Your task to perform on an android device: Do I have any events today? Image 0: 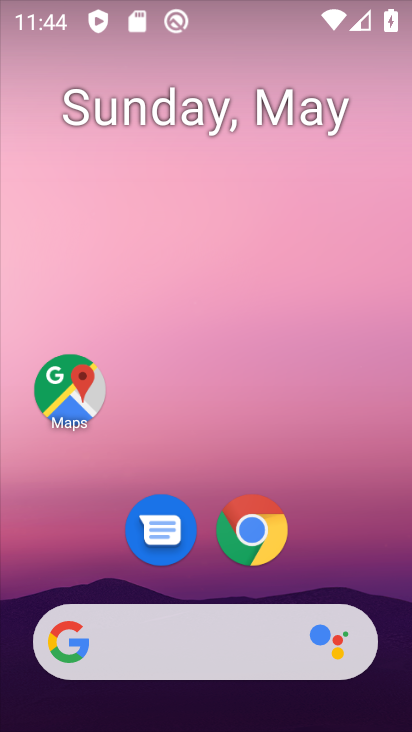
Step 0: drag from (238, 472) to (267, 70)
Your task to perform on an android device: Do I have any events today? Image 1: 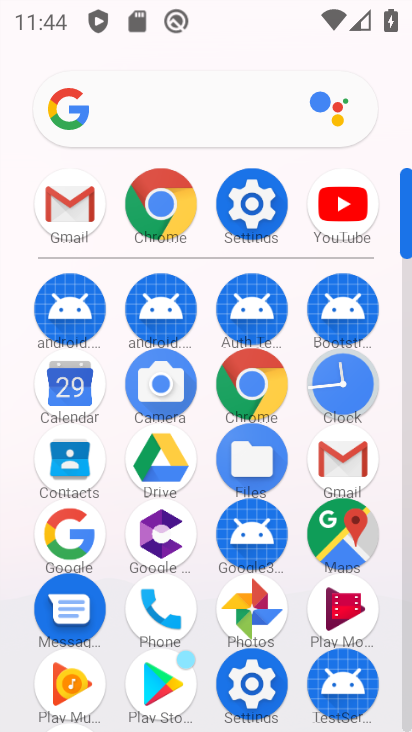
Step 1: click (54, 399)
Your task to perform on an android device: Do I have any events today? Image 2: 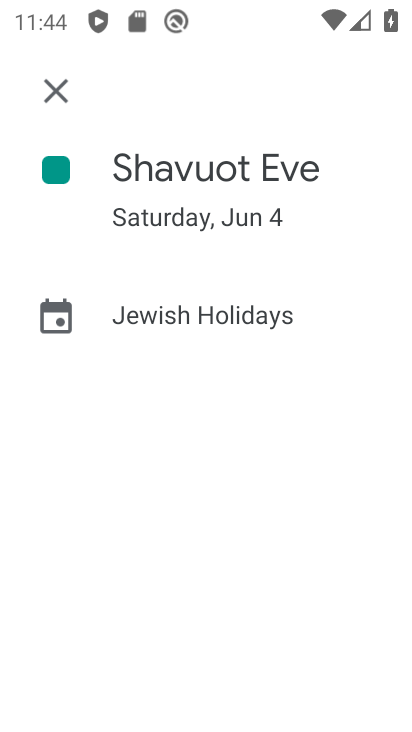
Step 2: click (36, 90)
Your task to perform on an android device: Do I have any events today? Image 3: 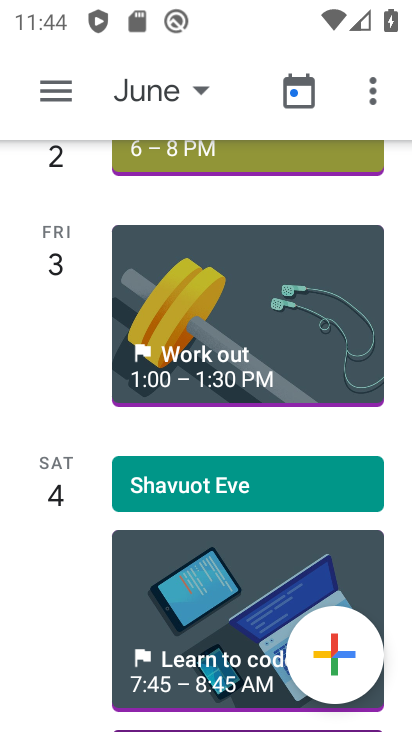
Step 3: drag from (195, 404) to (261, 48)
Your task to perform on an android device: Do I have any events today? Image 4: 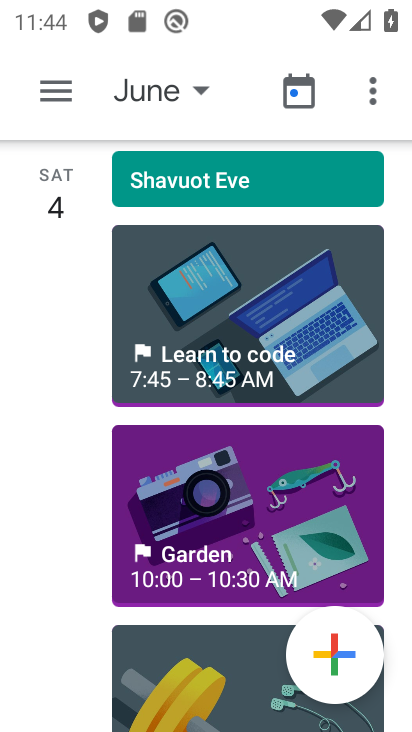
Step 4: drag from (229, 555) to (278, 114)
Your task to perform on an android device: Do I have any events today? Image 5: 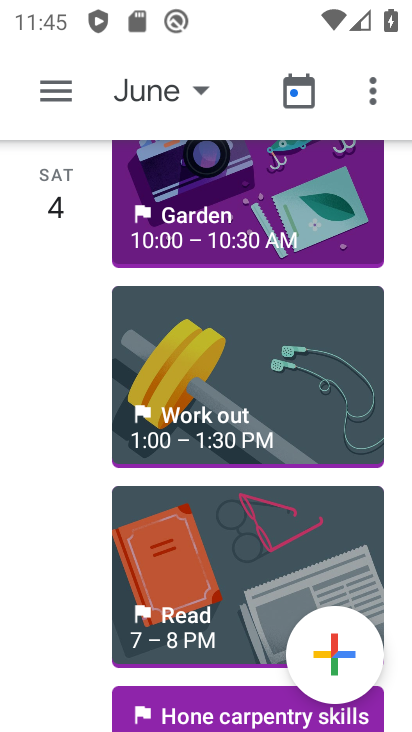
Step 5: click (270, 264)
Your task to perform on an android device: Do I have any events today? Image 6: 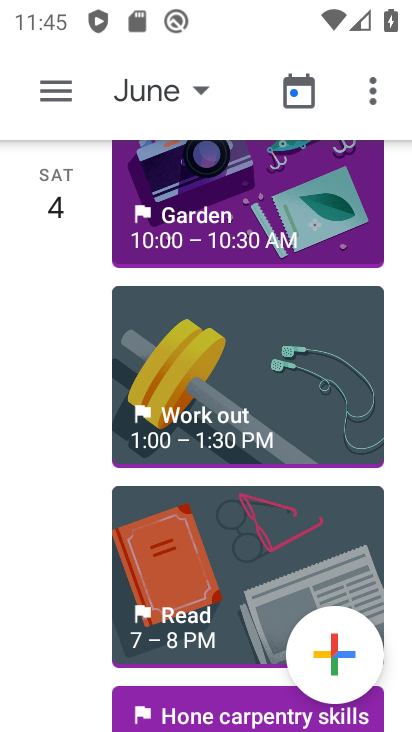
Step 6: drag from (221, 304) to (199, 610)
Your task to perform on an android device: Do I have any events today? Image 7: 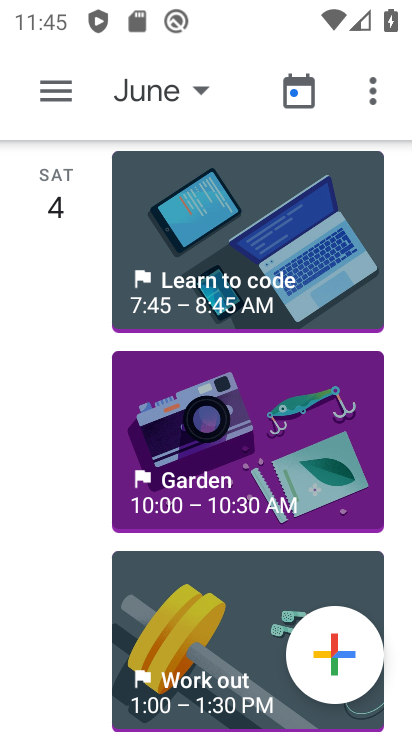
Step 7: drag from (193, 368) to (158, 711)
Your task to perform on an android device: Do I have any events today? Image 8: 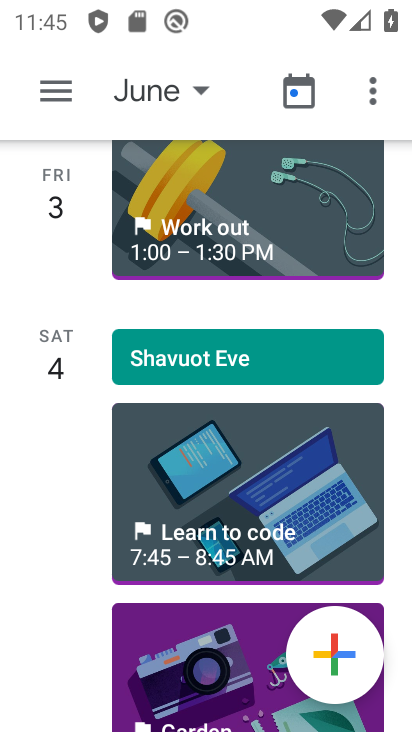
Step 8: click (158, 90)
Your task to perform on an android device: Do I have any events today? Image 9: 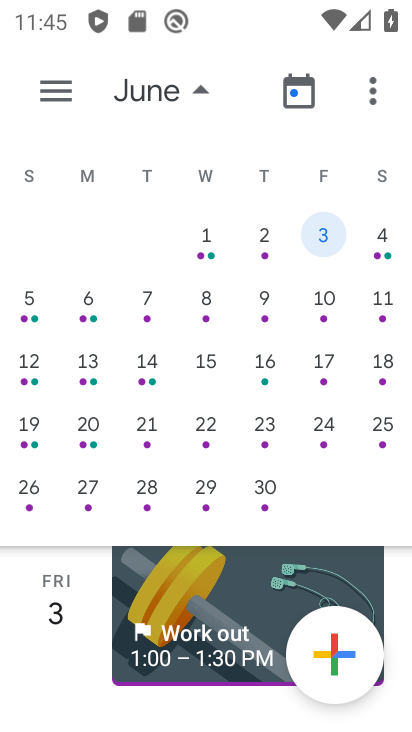
Step 9: drag from (33, 349) to (368, 410)
Your task to perform on an android device: Do I have any events today? Image 10: 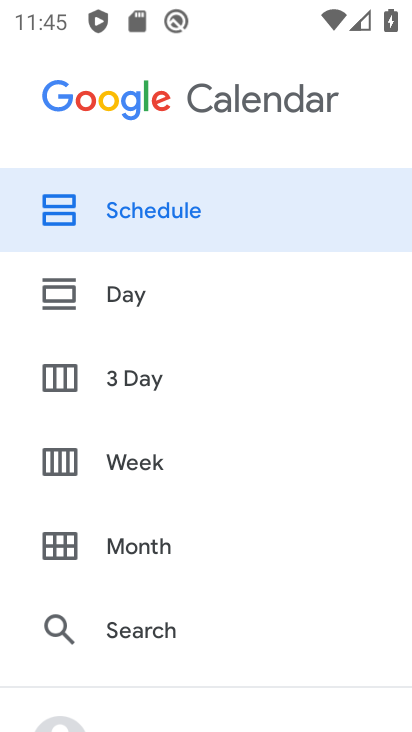
Step 10: drag from (367, 400) to (0, 393)
Your task to perform on an android device: Do I have any events today? Image 11: 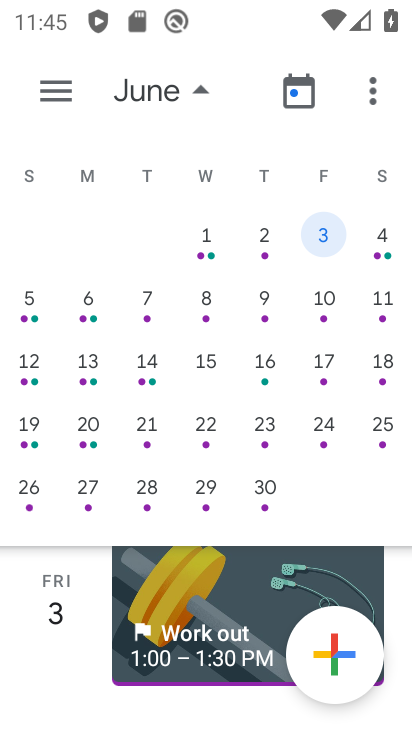
Step 11: drag from (43, 398) to (371, 399)
Your task to perform on an android device: Do I have any events today? Image 12: 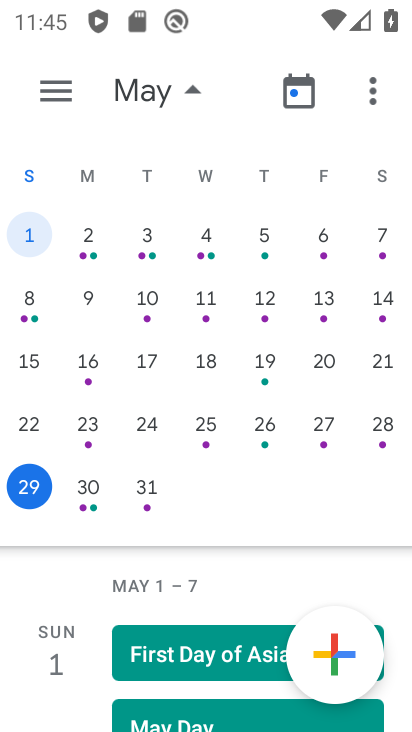
Step 12: click (90, 486)
Your task to perform on an android device: Do I have any events today? Image 13: 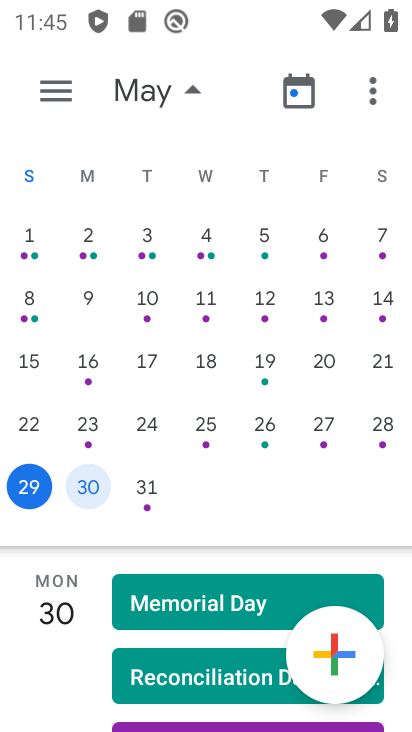
Step 13: task complete